Your task to perform on an android device: Open network settings Image 0: 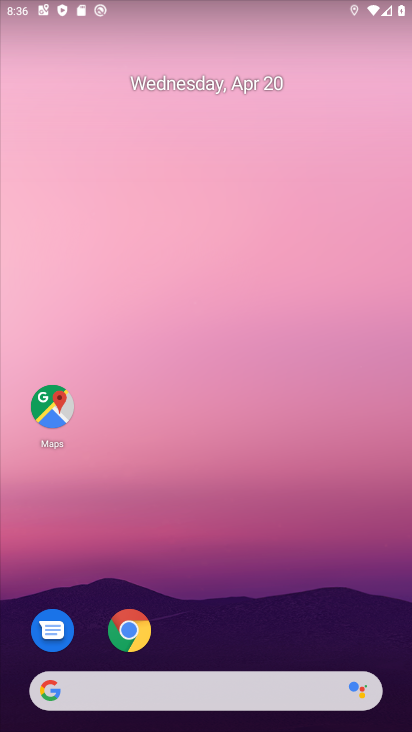
Step 0: drag from (207, 640) to (326, 48)
Your task to perform on an android device: Open network settings Image 1: 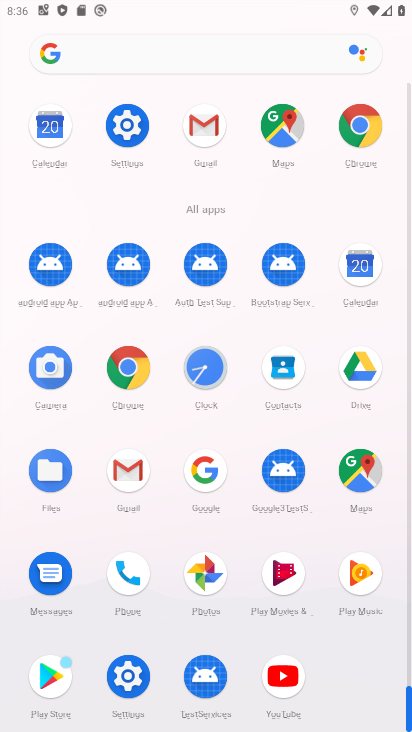
Step 1: click (140, 687)
Your task to perform on an android device: Open network settings Image 2: 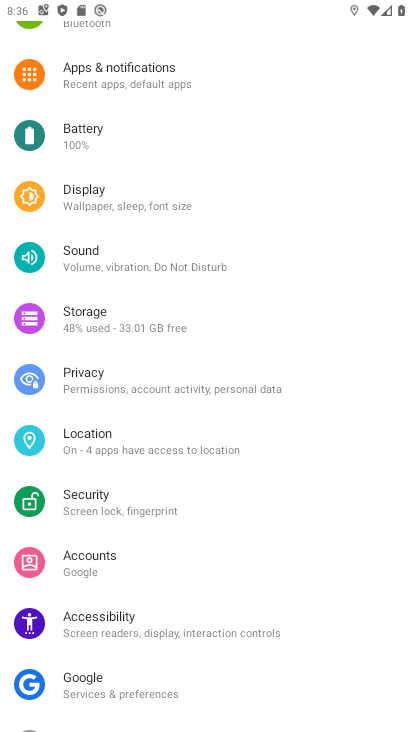
Step 2: drag from (192, 149) to (132, 701)
Your task to perform on an android device: Open network settings Image 3: 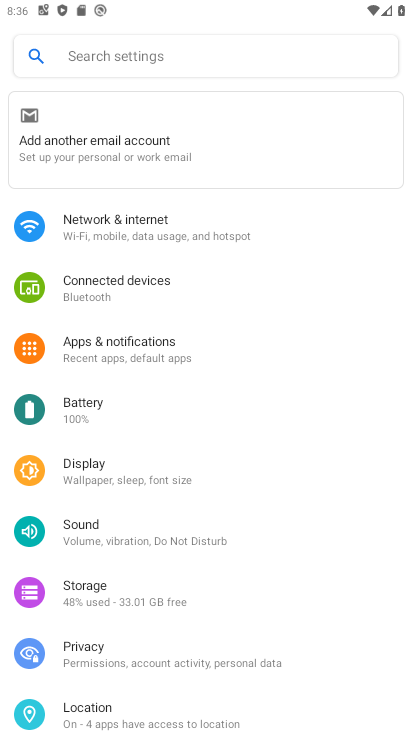
Step 3: click (143, 228)
Your task to perform on an android device: Open network settings Image 4: 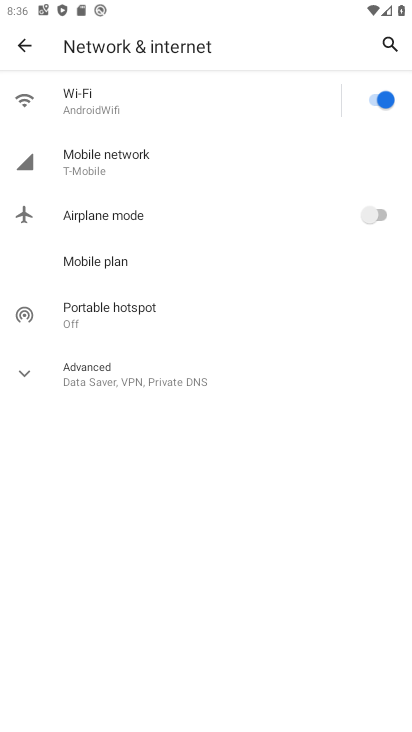
Step 4: task complete